Your task to perform on an android device: find photos in the google photos app Image 0: 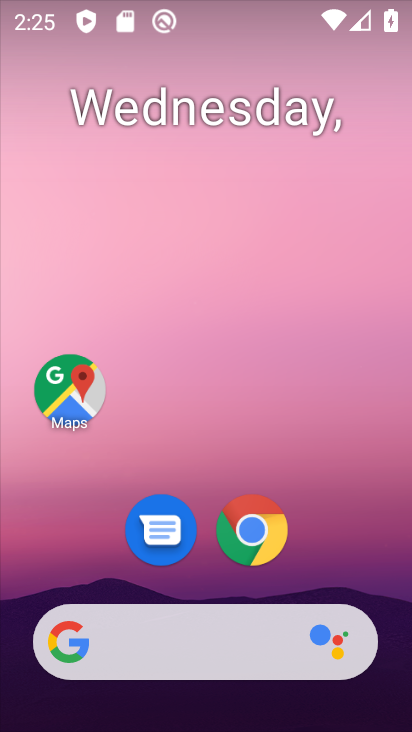
Step 0: drag from (329, 576) to (340, 245)
Your task to perform on an android device: find photos in the google photos app Image 1: 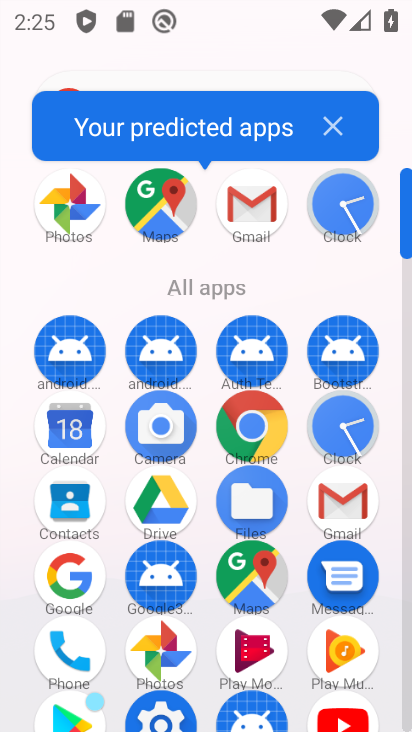
Step 1: click (160, 655)
Your task to perform on an android device: find photos in the google photos app Image 2: 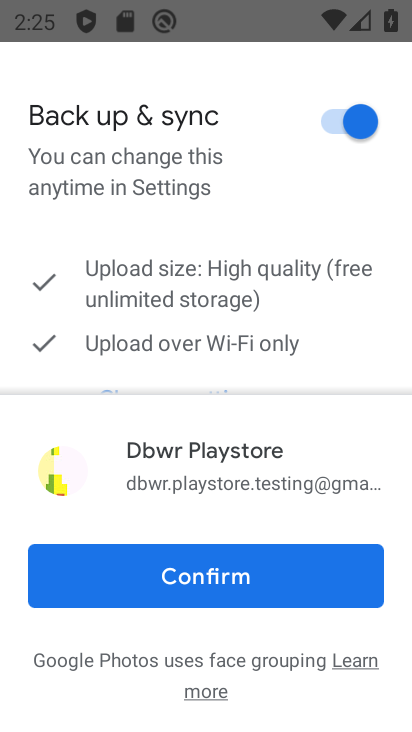
Step 2: click (265, 582)
Your task to perform on an android device: find photos in the google photos app Image 3: 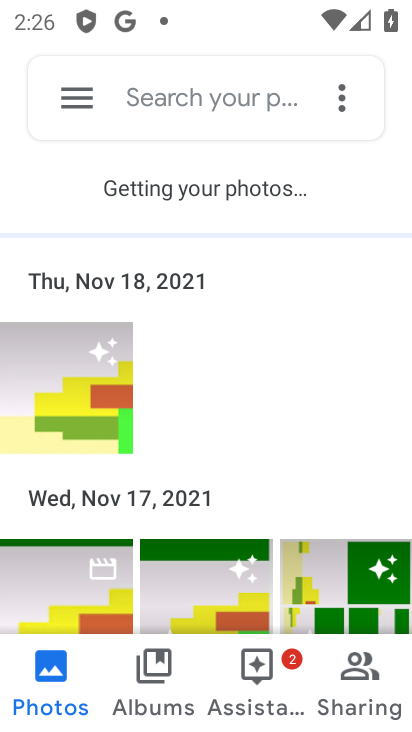
Step 3: task complete